Your task to perform on an android device: When is my next appointment? Image 0: 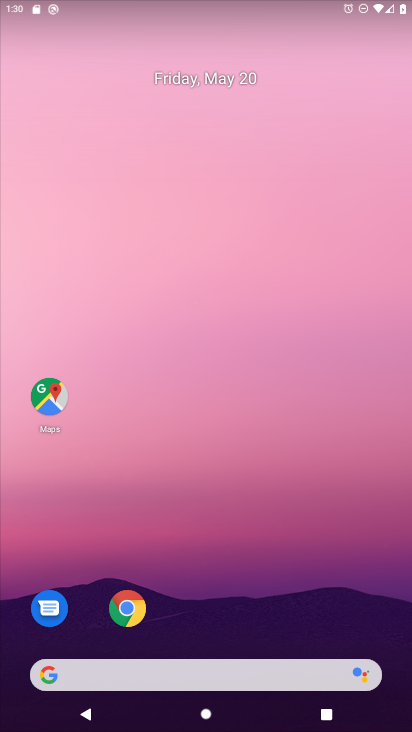
Step 0: press home button
Your task to perform on an android device: When is my next appointment? Image 1: 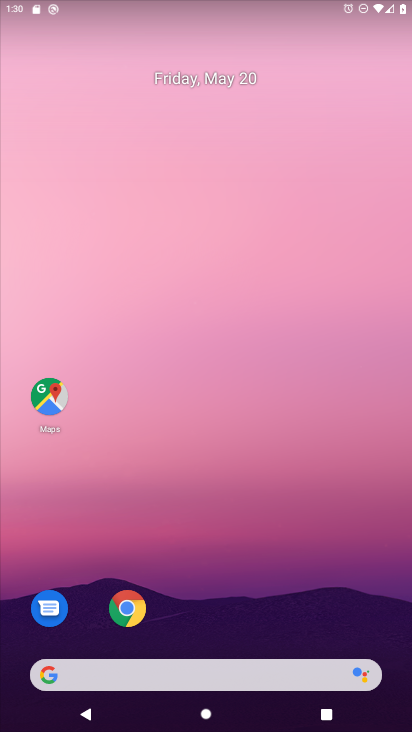
Step 1: drag from (219, 604) to (209, 66)
Your task to perform on an android device: When is my next appointment? Image 2: 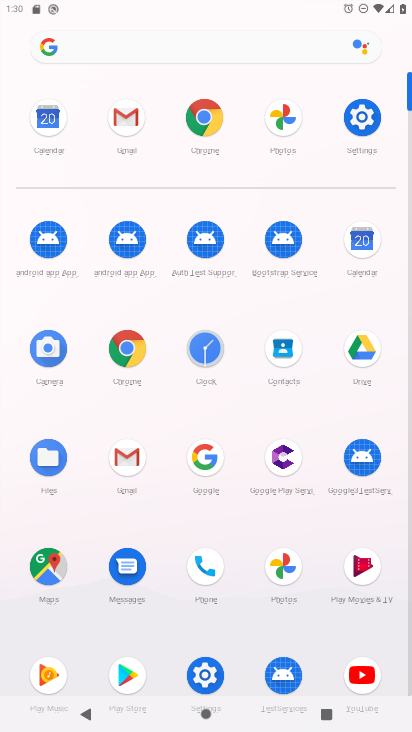
Step 2: click (348, 248)
Your task to perform on an android device: When is my next appointment? Image 3: 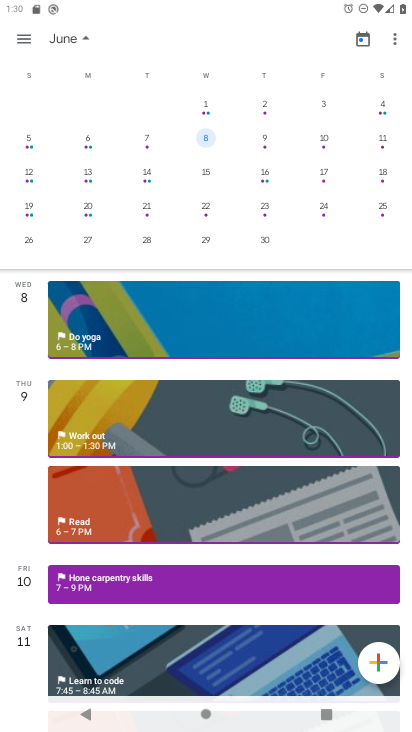
Step 3: drag from (43, 112) to (410, 179)
Your task to perform on an android device: When is my next appointment? Image 4: 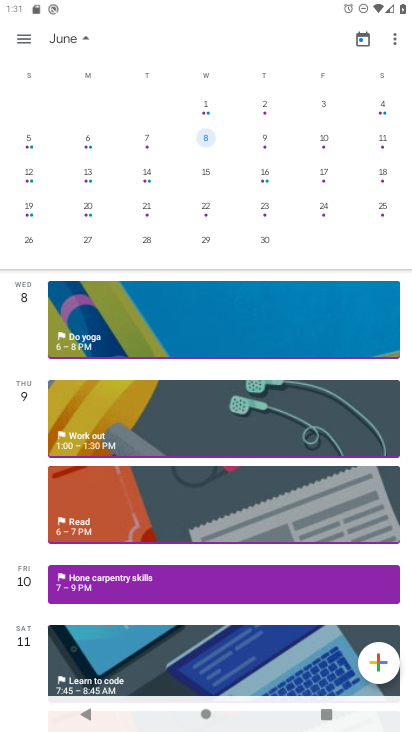
Step 4: drag from (136, 198) to (405, 225)
Your task to perform on an android device: When is my next appointment? Image 5: 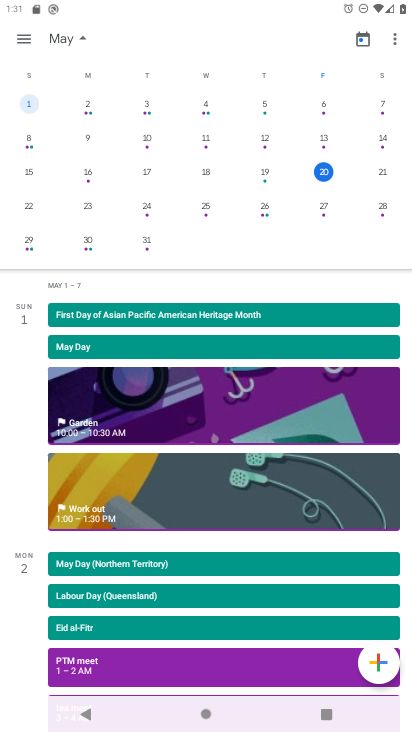
Step 5: click (331, 164)
Your task to perform on an android device: When is my next appointment? Image 6: 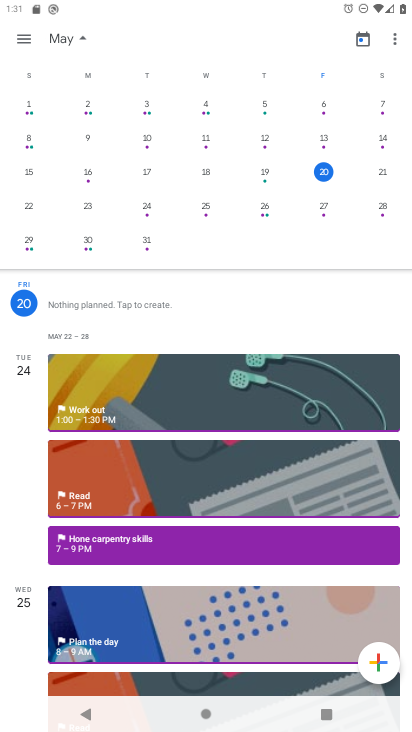
Step 6: click (85, 41)
Your task to perform on an android device: When is my next appointment? Image 7: 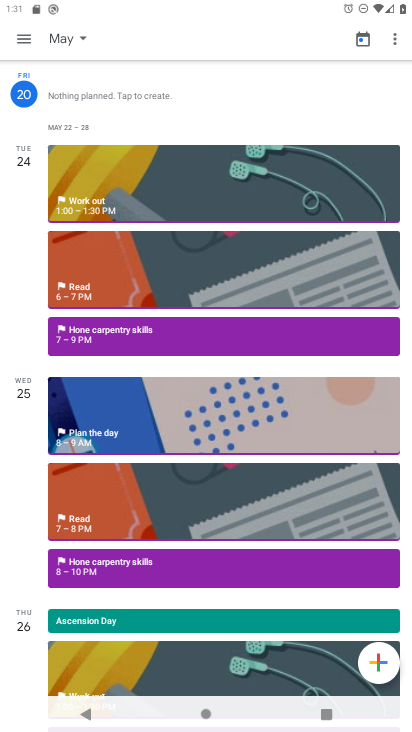
Step 7: task complete